Your task to perform on an android device: open device folders in google photos Image 0: 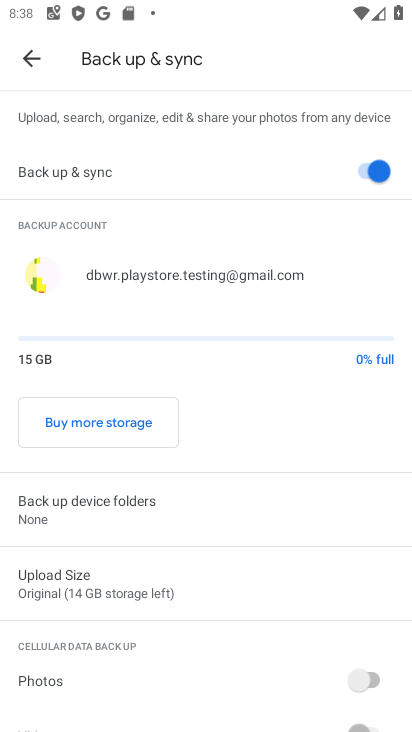
Step 0: click (28, 50)
Your task to perform on an android device: open device folders in google photos Image 1: 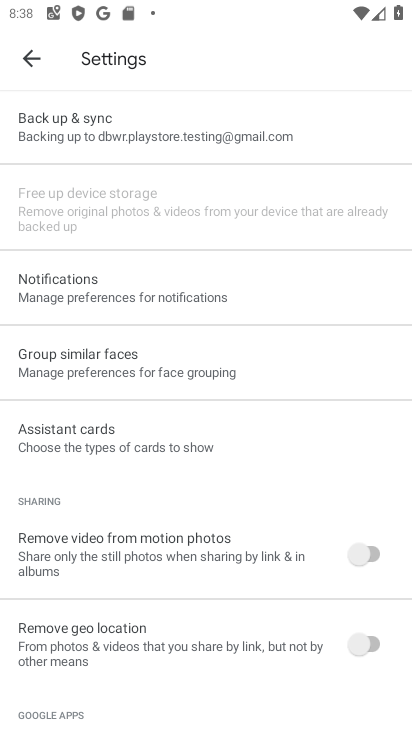
Step 1: click (32, 50)
Your task to perform on an android device: open device folders in google photos Image 2: 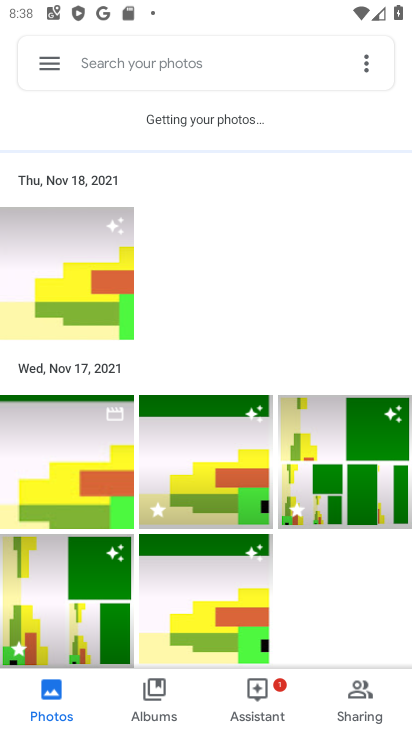
Step 2: click (37, 56)
Your task to perform on an android device: open device folders in google photos Image 3: 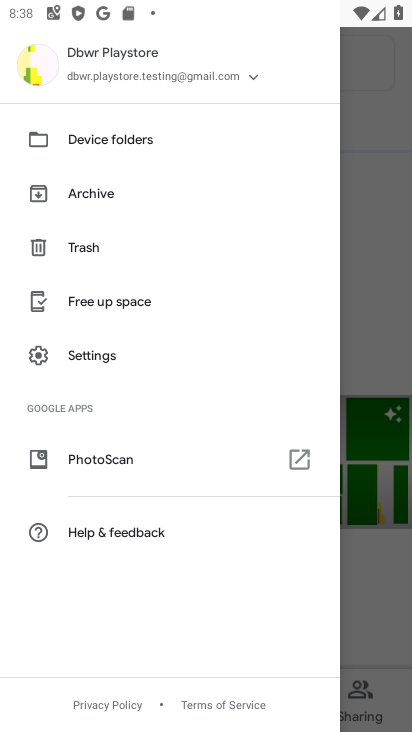
Step 3: click (90, 133)
Your task to perform on an android device: open device folders in google photos Image 4: 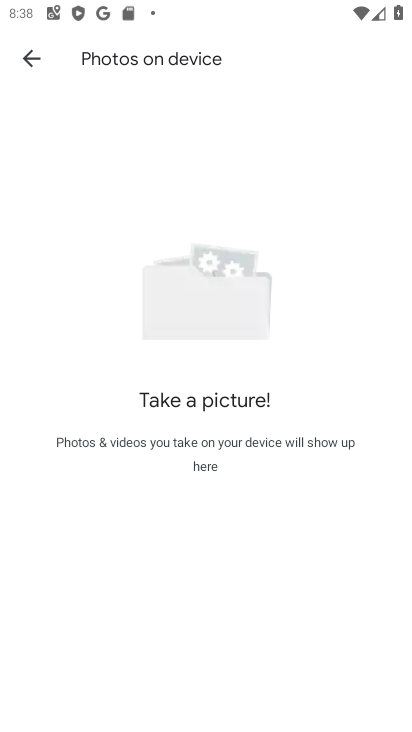
Step 4: task complete